Your task to perform on an android device: When is my next appointment? Image 0: 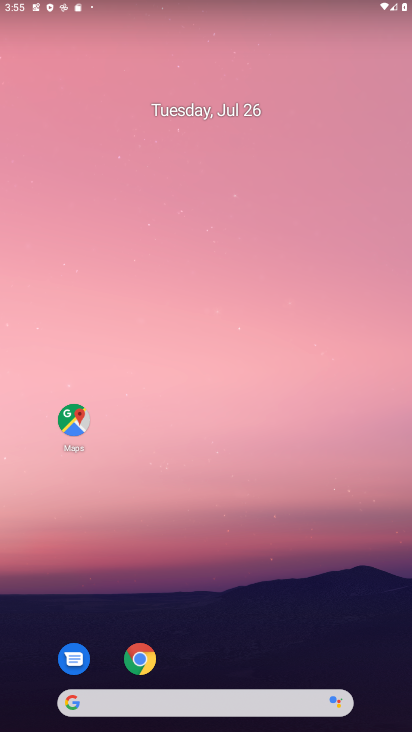
Step 0: drag from (253, 657) to (255, 15)
Your task to perform on an android device: When is my next appointment? Image 1: 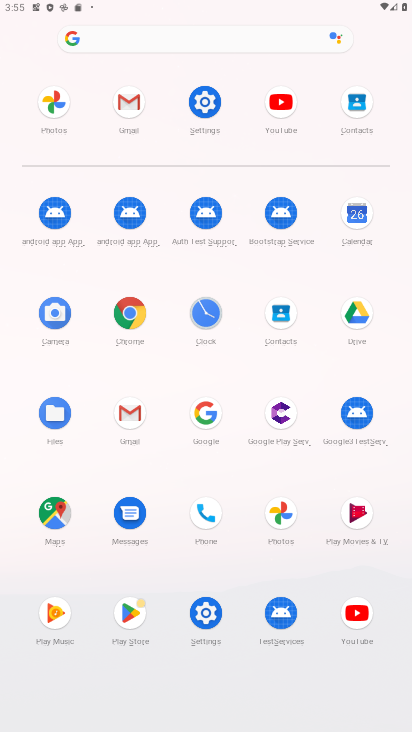
Step 1: click (390, 261)
Your task to perform on an android device: When is my next appointment? Image 2: 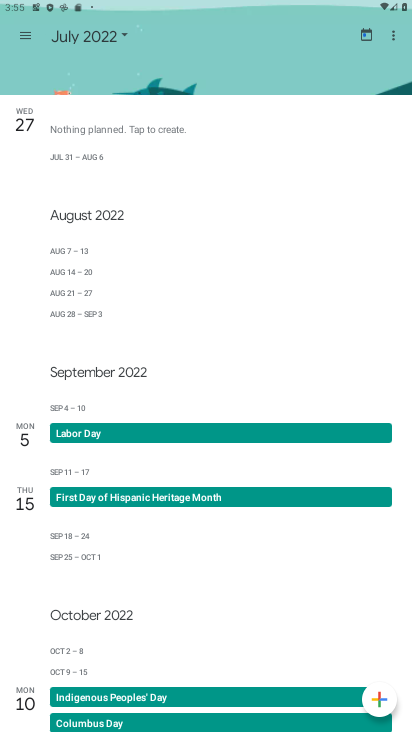
Step 2: click (357, 222)
Your task to perform on an android device: When is my next appointment? Image 3: 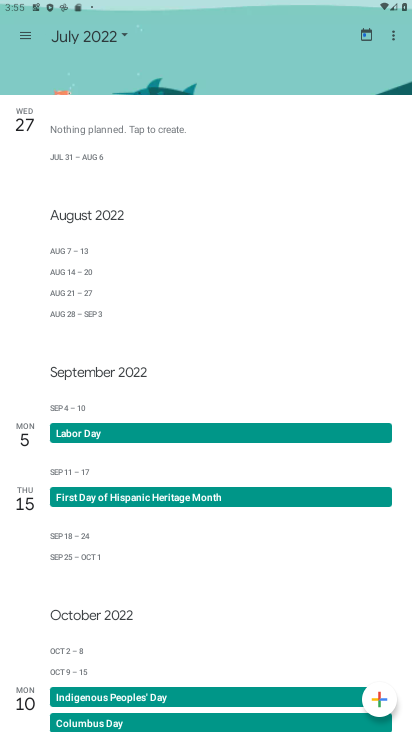
Step 3: click (90, 33)
Your task to perform on an android device: When is my next appointment? Image 4: 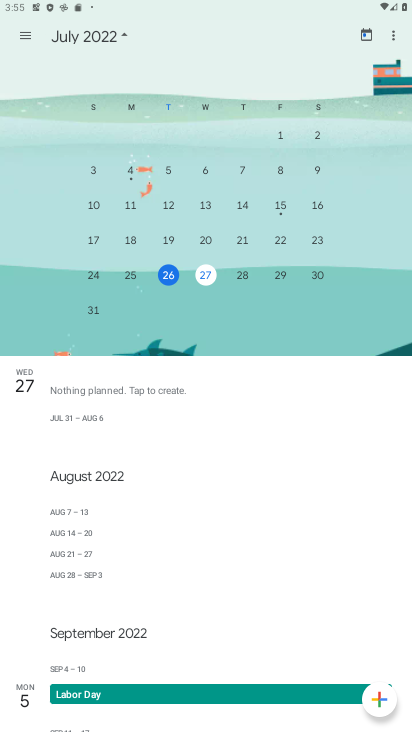
Step 4: click (167, 278)
Your task to perform on an android device: When is my next appointment? Image 5: 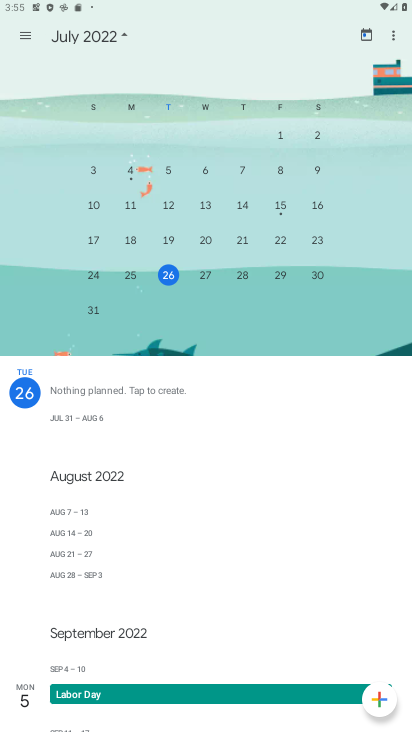
Step 5: task complete